Your task to perform on an android device: clear all cookies in the chrome app Image 0: 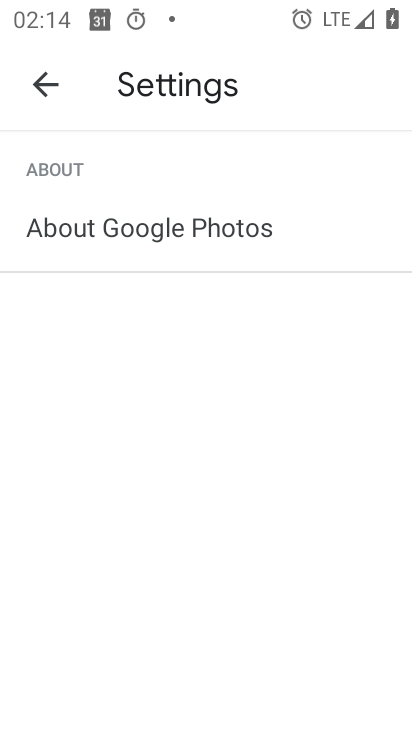
Step 0: drag from (335, 598) to (384, 406)
Your task to perform on an android device: clear all cookies in the chrome app Image 1: 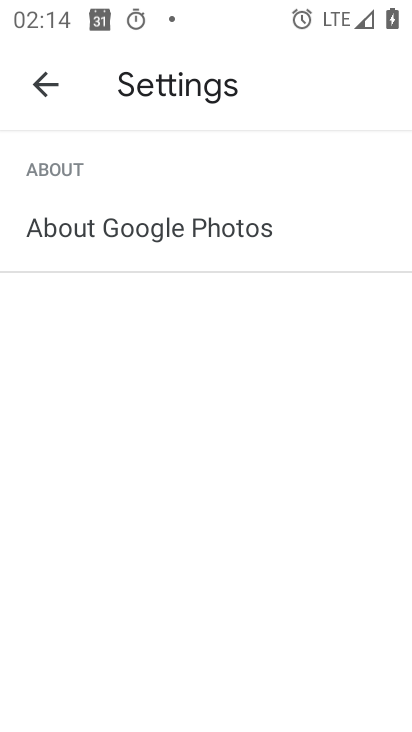
Step 1: press home button
Your task to perform on an android device: clear all cookies in the chrome app Image 2: 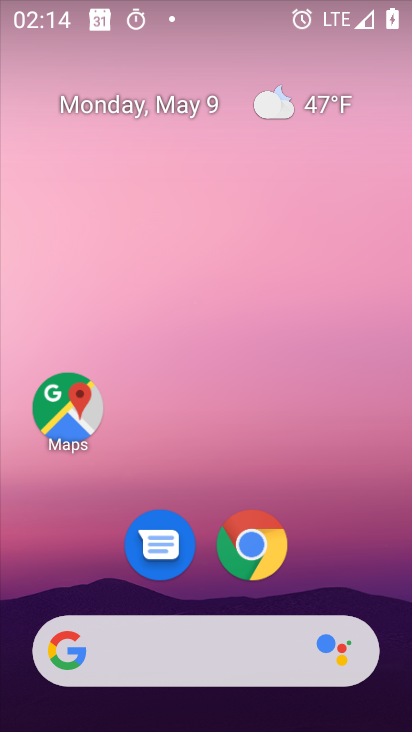
Step 2: drag from (311, 573) to (308, 50)
Your task to perform on an android device: clear all cookies in the chrome app Image 3: 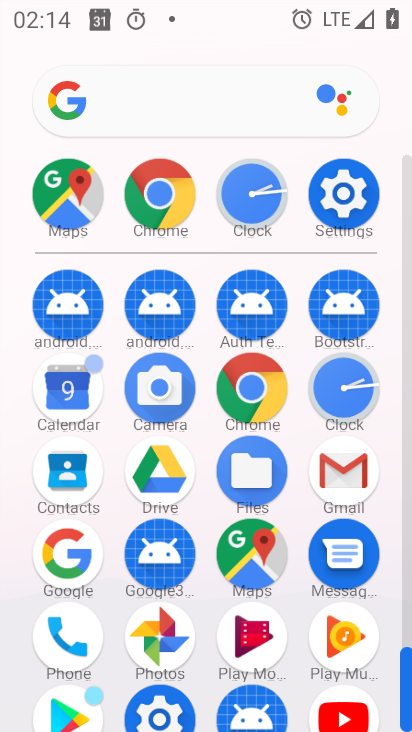
Step 3: click (249, 394)
Your task to perform on an android device: clear all cookies in the chrome app Image 4: 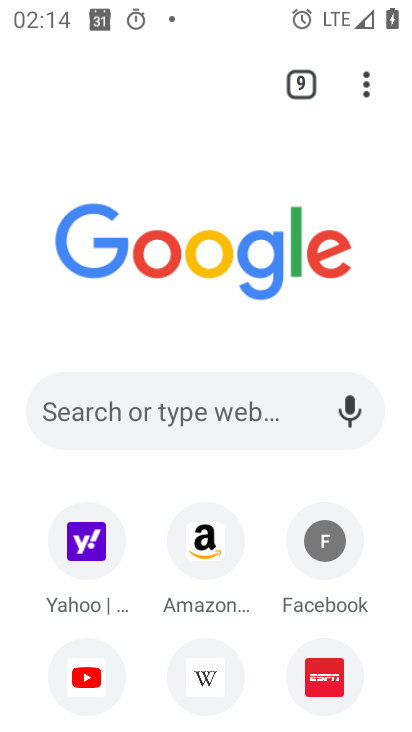
Step 4: drag from (367, 83) to (213, 596)
Your task to perform on an android device: clear all cookies in the chrome app Image 5: 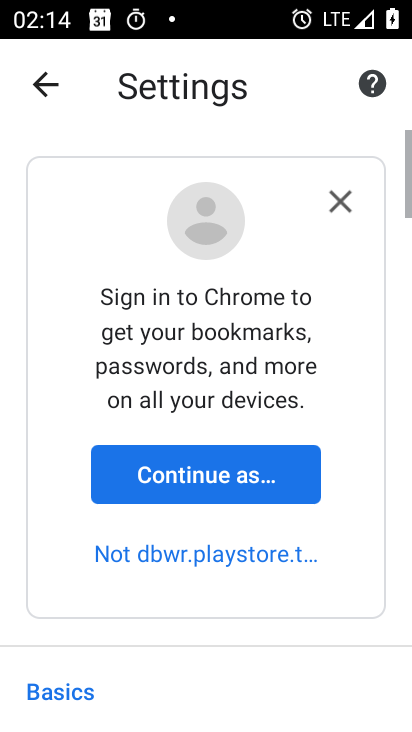
Step 5: drag from (255, 642) to (312, 21)
Your task to perform on an android device: clear all cookies in the chrome app Image 6: 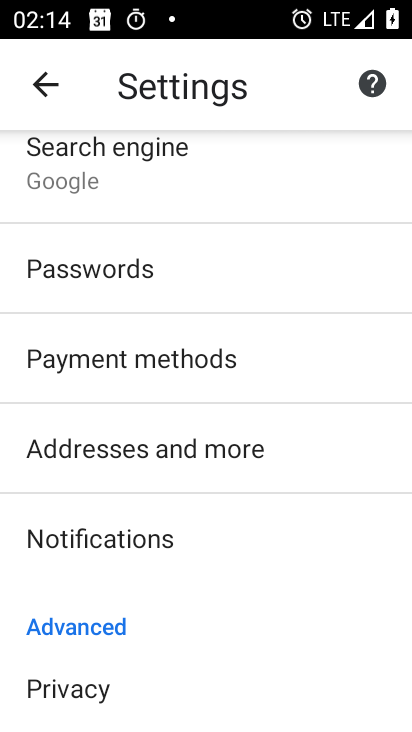
Step 6: drag from (248, 650) to (284, 119)
Your task to perform on an android device: clear all cookies in the chrome app Image 7: 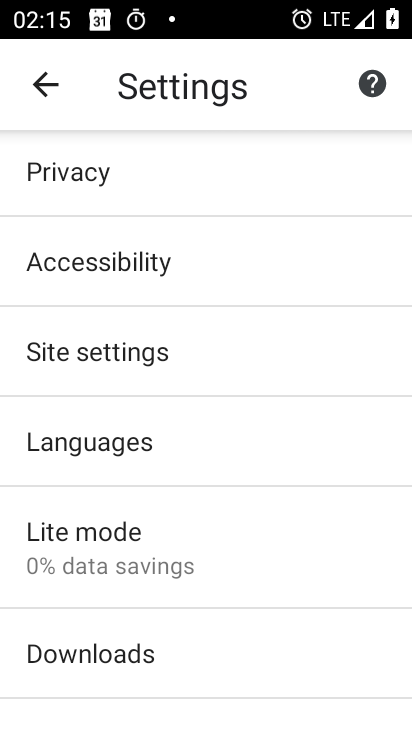
Step 7: click (182, 365)
Your task to perform on an android device: clear all cookies in the chrome app Image 8: 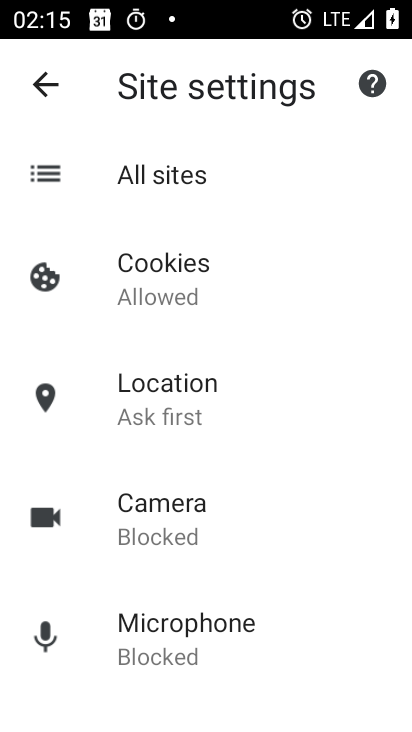
Step 8: press back button
Your task to perform on an android device: clear all cookies in the chrome app Image 9: 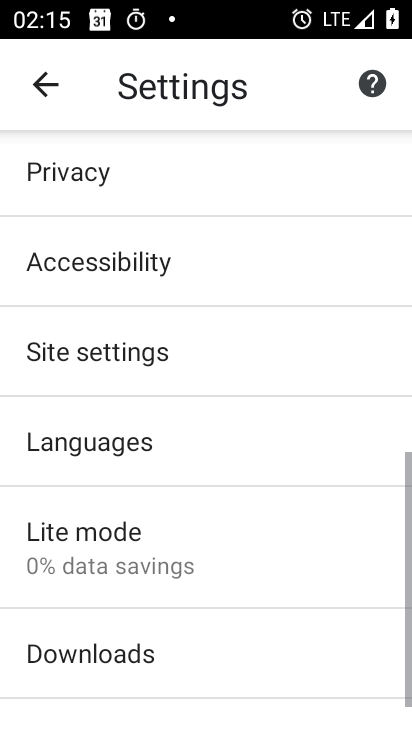
Step 9: click (192, 194)
Your task to perform on an android device: clear all cookies in the chrome app Image 10: 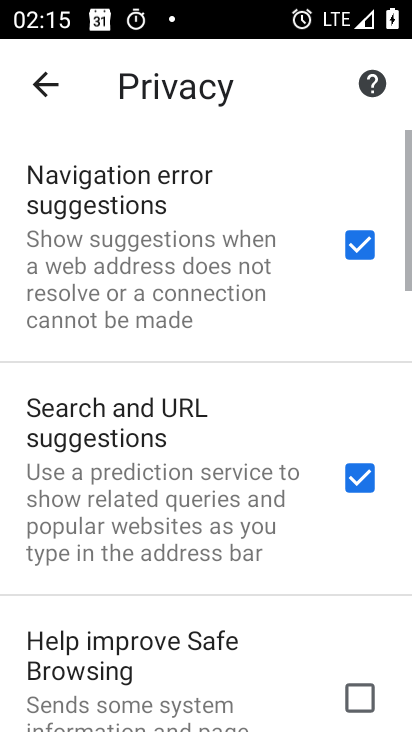
Step 10: drag from (243, 560) to (271, 91)
Your task to perform on an android device: clear all cookies in the chrome app Image 11: 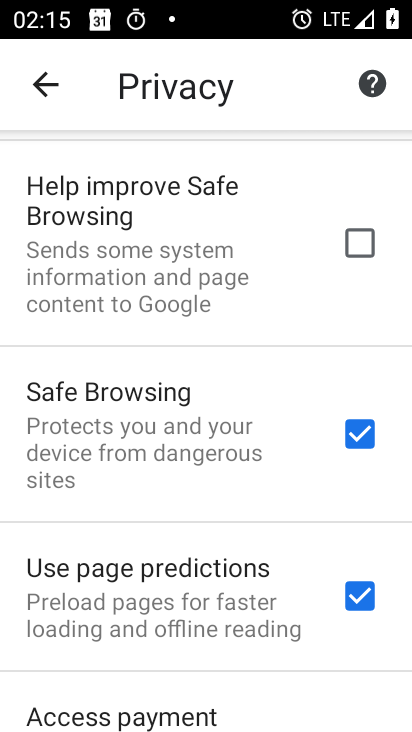
Step 11: drag from (262, 604) to (277, 87)
Your task to perform on an android device: clear all cookies in the chrome app Image 12: 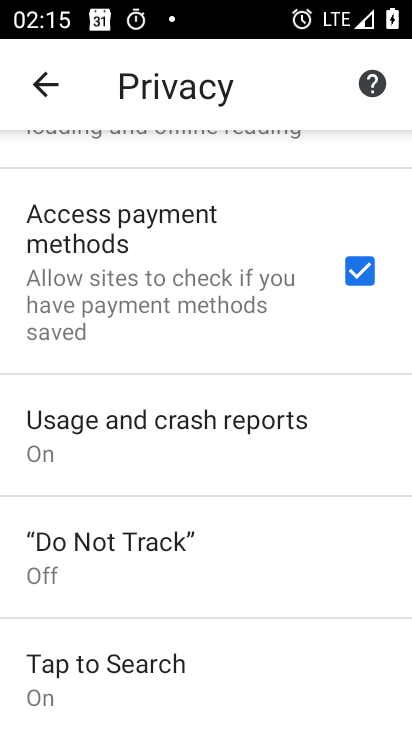
Step 12: drag from (220, 622) to (235, 142)
Your task to perform on an android device: clear all cookies in the chrome app Image 13: 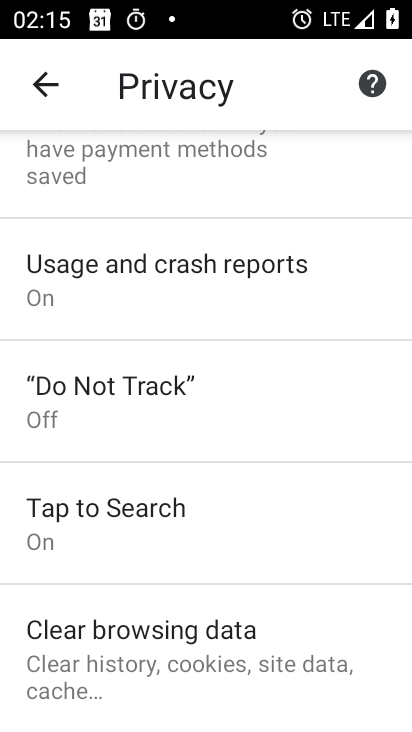
Step 13: click (223, 636)
Your task to perform on an android device: clear all cookies in the chrome app Image 14: 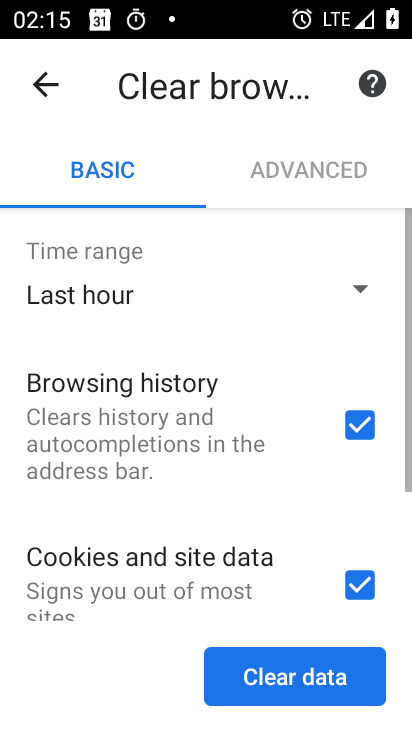
Step 14: click (283, 694)
Your task to perform on an android device: clear all cookies in the chrome app Image 15: 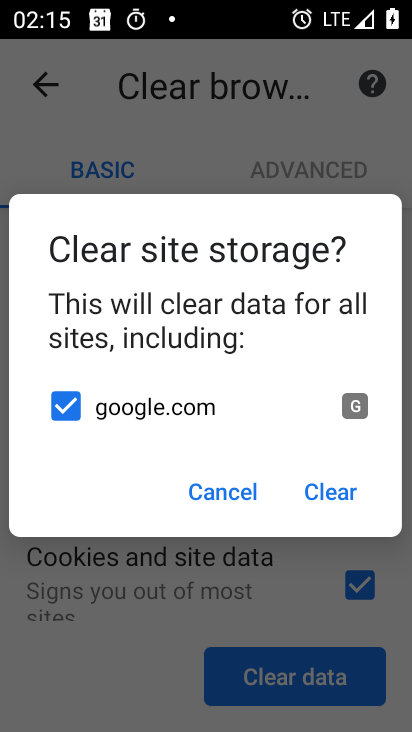
Step 15: click (309, 493)
Your task to perform on an android device: clear all cookies in the chrome app Image 16: 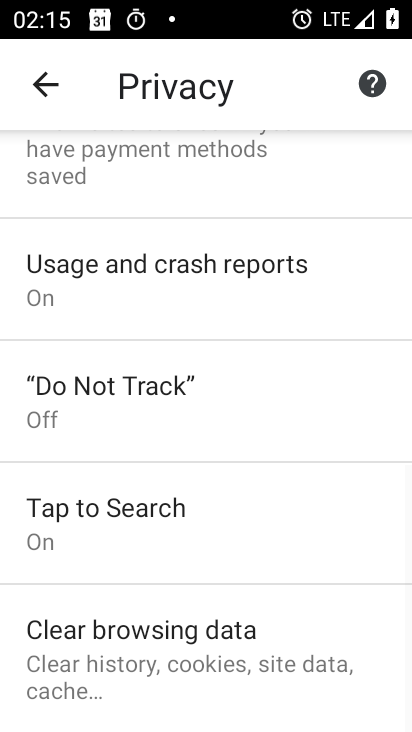
Step 16: task complete